Your task to perform on an android device: turn on wifi Image 0: 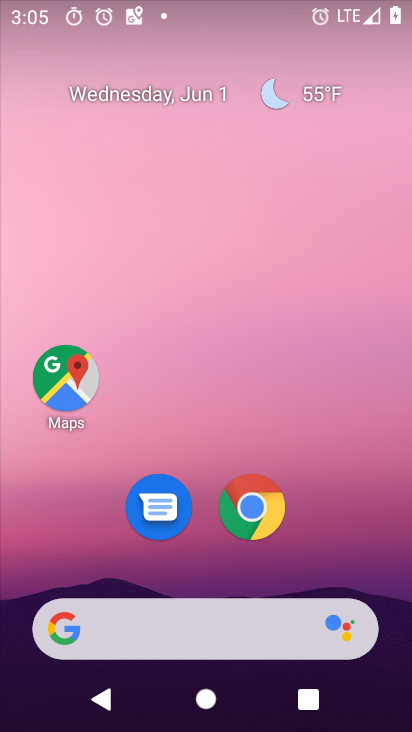
Step 0: drag from (352, 570) to (231, 7)
Your task to perform on an android device: turn on wifi Image 1: 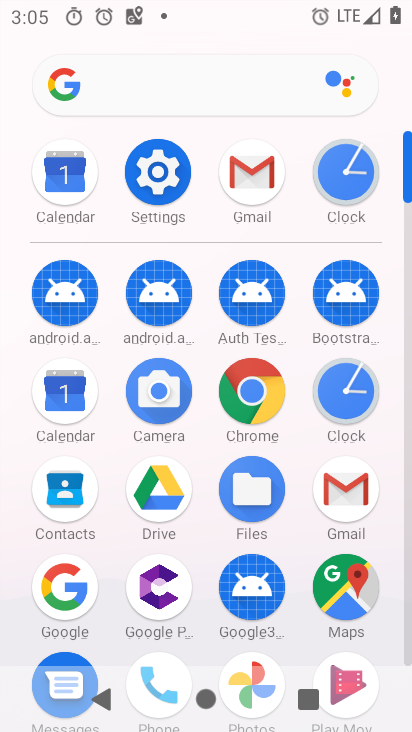
Step 1: click (145, 169)
Your task to perform on an android device: turn on wifi Image 2: 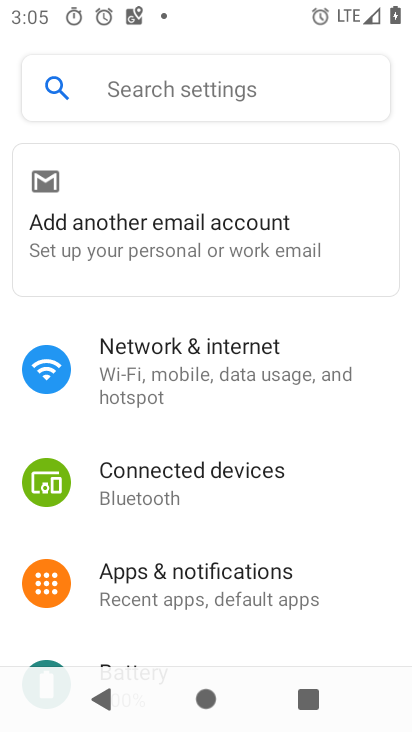
Step 2: click (141, 361)
Your task to perform on an android device: turn on wifi Image 3: 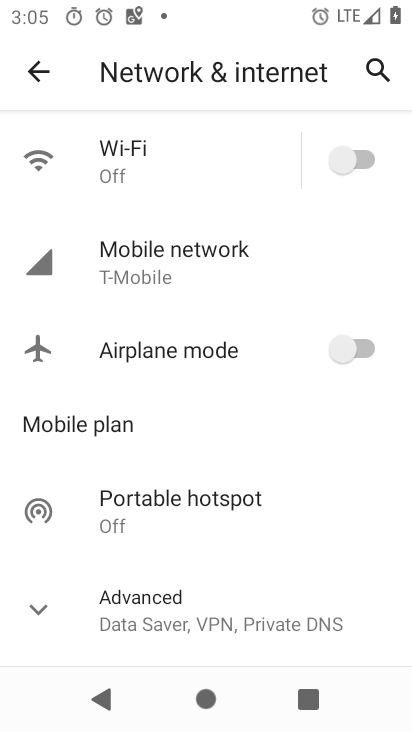
Step 3: click (363, 158)
Your task to perform on an android device: turn on wifi Image 4: 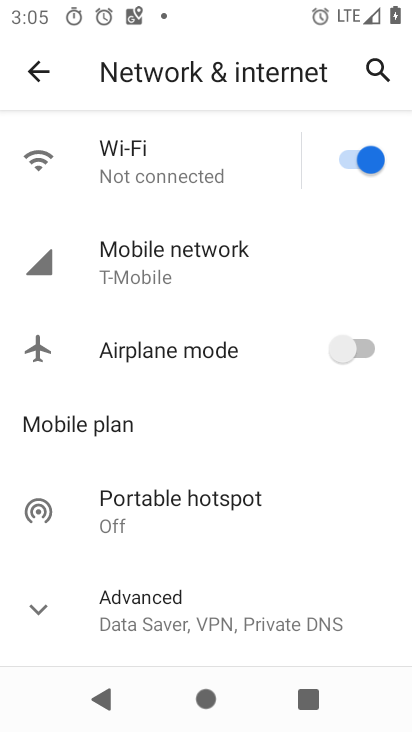
Step 4: task complete